Your task to perform on an android device: Go to ESPN.com Image 0: 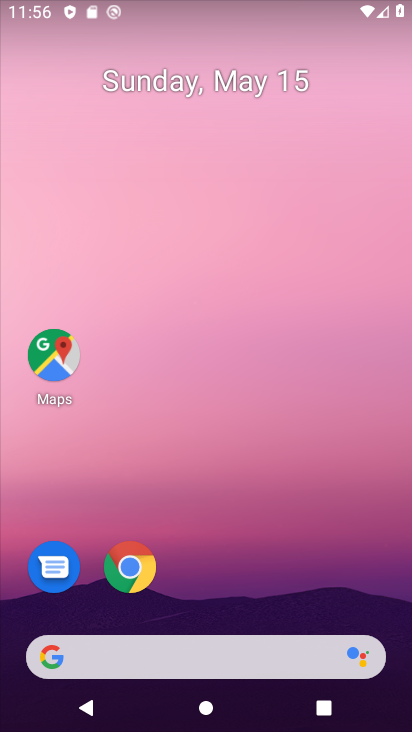
Step 0: click (123, 559)
Your task to perform on an android device: Go to ESPN.com Image 1: 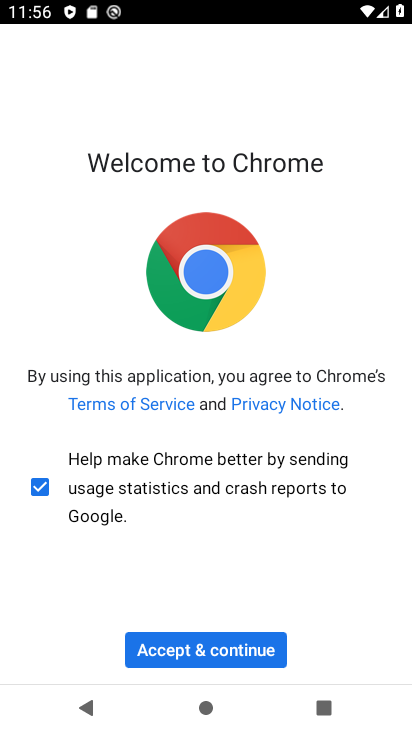
Step 1: click (230, 639)
Your task to perform on an android device: Go to ESPN.com Image 2: 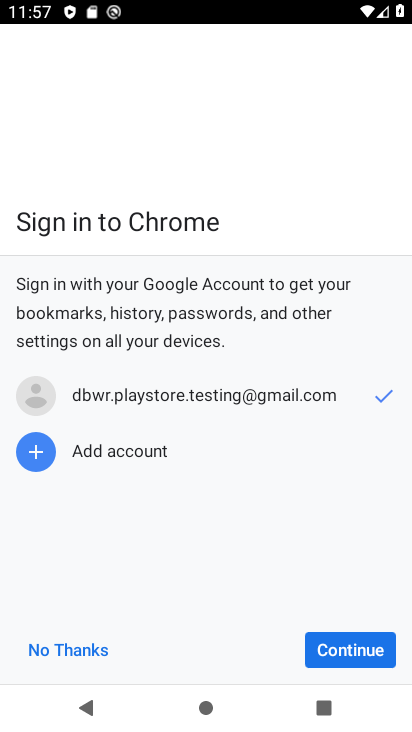
Step 2: click (356, 642)
Your task to perform on an android device: Go to ESPN.com Image 3: 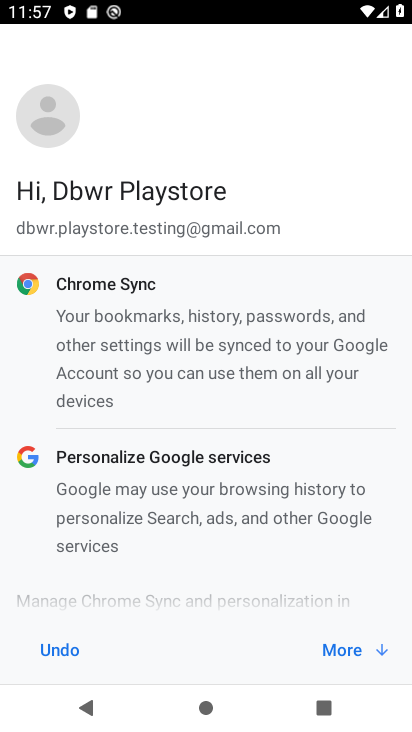
Step 3: click (356, 642)
Your task to perform on an android device: Go to ESPN.com Image 4: 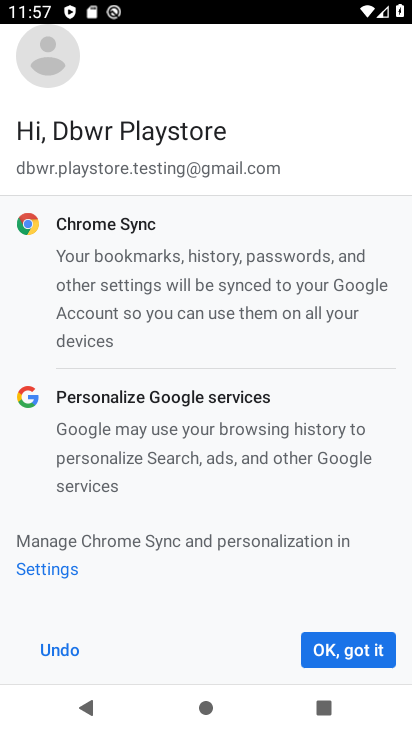
Step 4: click (356, 641)
Your task to perform on an android device: Go to ESPN.com Image 5: 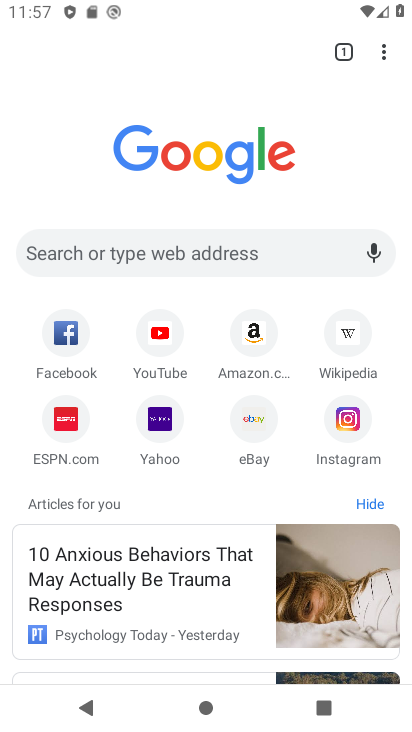
Step 5: click (70, 412)
Your task to perform on an android device: Go to ESPN.com Image 6: 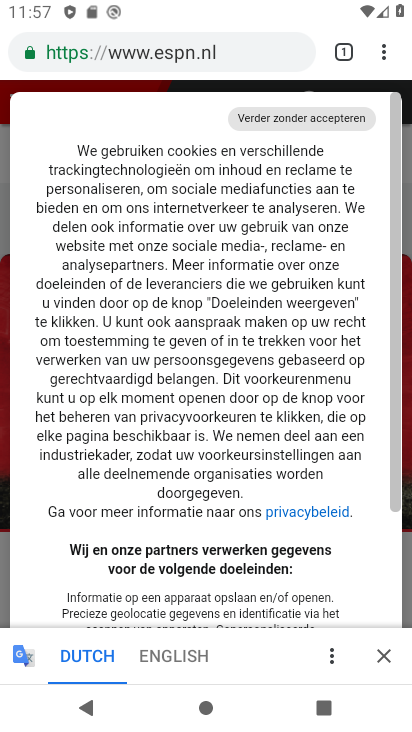
Step 6: task complete